Your task to perform on an android device: turn off improve location accuracy Image 0: 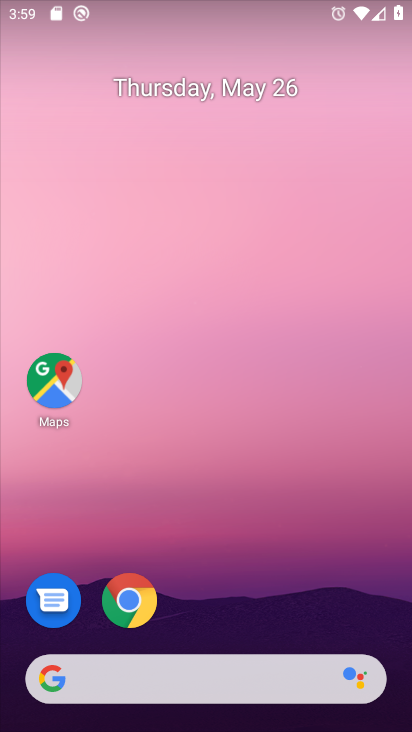
Step 0: drag from (225, 622) to (262, 206)
Your task to perform on an android device: turn off improve location accuracy Image 1: 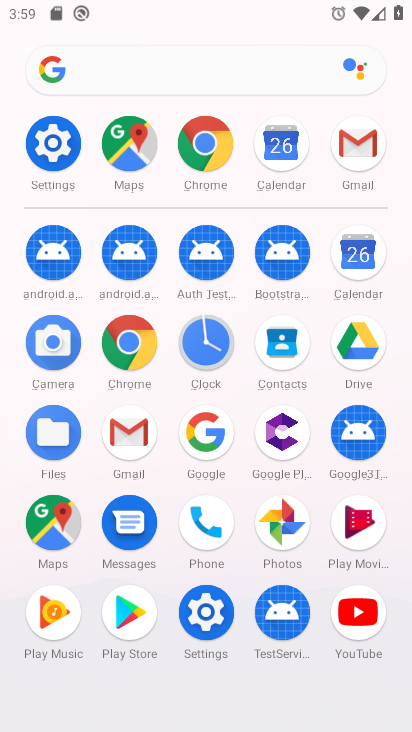
Step 1: click (56, 151)
Your task to perform on an android device: turn off improve location accuracy Image 2: 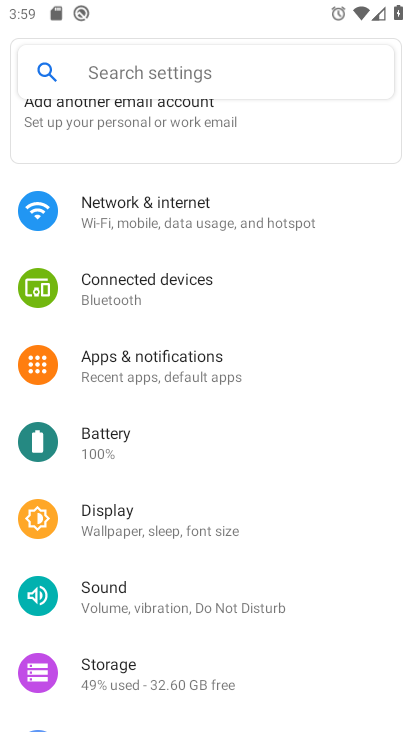
Step 2: drag from (123, 679) to (196, 339)
Your task to perform on an android device: turn off improve location accuracy Image 3: 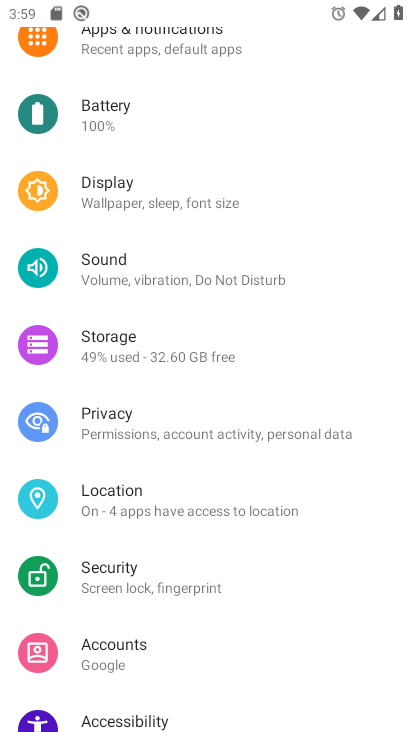
Step 3: click (169, 508)
Your task to perform on an android device: turn off improve location accuracy Image 4: 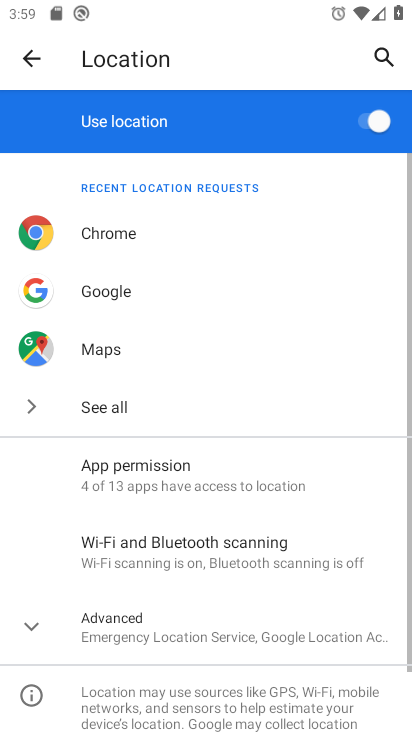
Step 4: click (139, 638)
Your task to perform on an android device: turn off improve location accuracy Image 5: 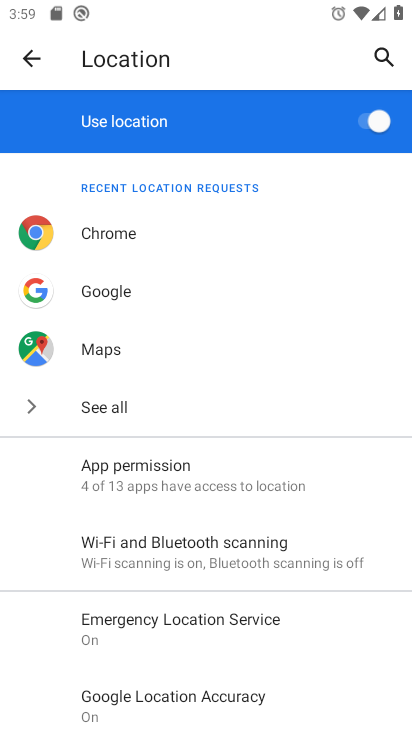
Step 5: click (151, 711)
Your task to perform on an android device: turn off improve location accuracy Image 6: 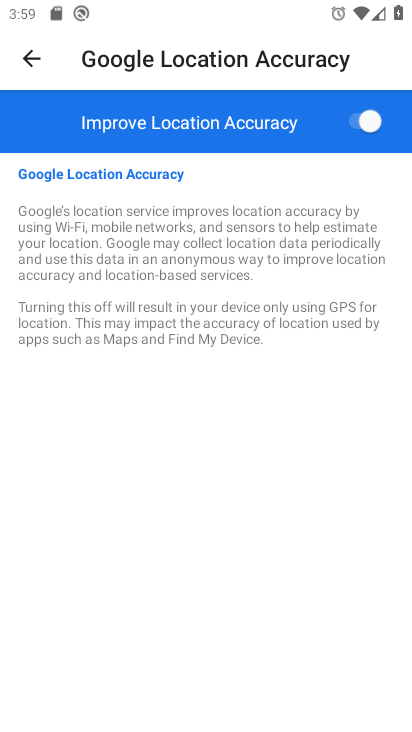
Step 6: click (338, 118)
Your task to perform on an android device: turn off improve location accuracy Image 7: 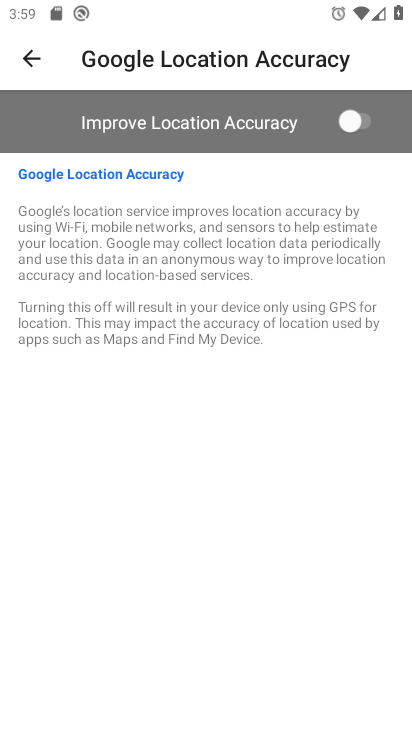
Step 7: task complete